Your task to perform on an android device: Open my contact list Image 0: 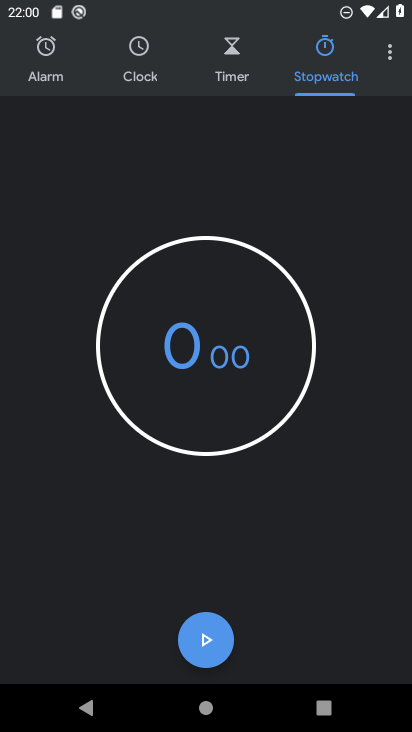
Step 0: press home button
Your task to perform on an android device: Open my contact list Image 1: 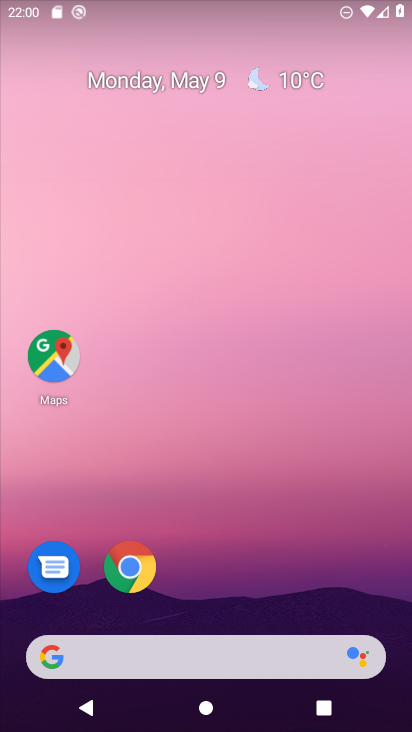
Step 1: drag from (229, 525) to (225, 41)
Your task to perform on an android device: Open my contact list Image 2: 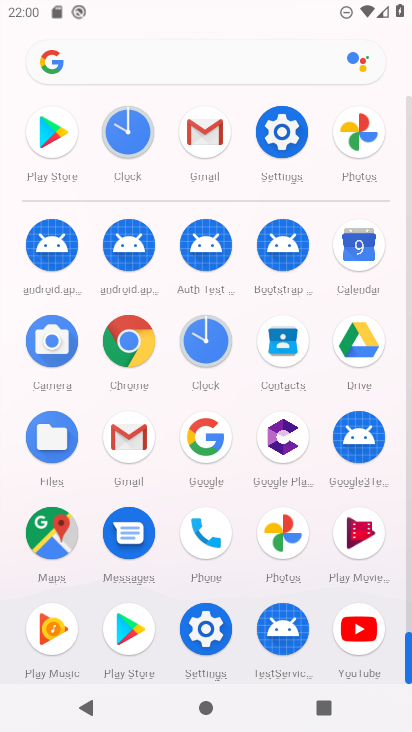
Step 2: click (277, 346)
Your task to perform on an android device: Open my contact list Image 3: 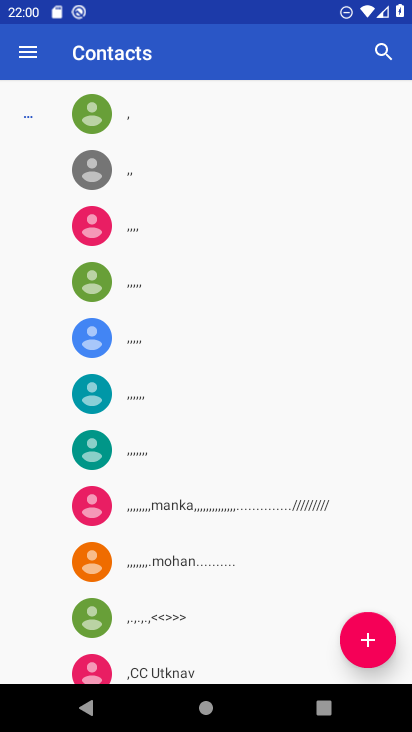
Step 3: task complete